Your task to perform on an android device: Go to display settings Image 0: 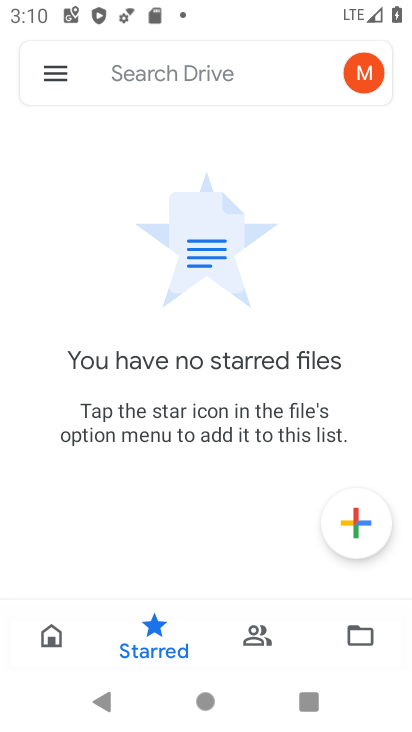
Step 0: press home button
Your task to perform on an android device: Go to display settings Image 1: 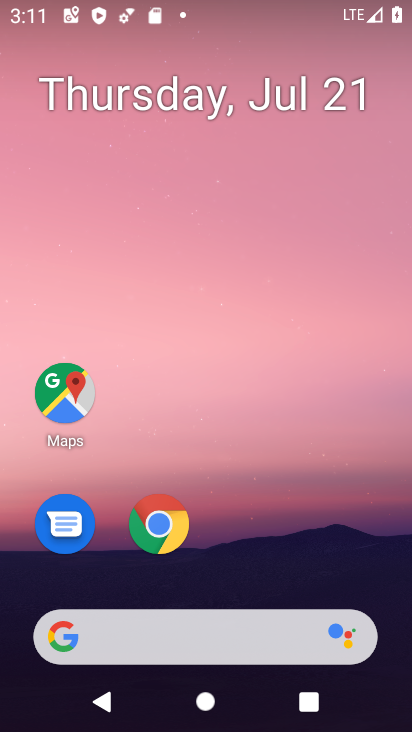
Step 1: drag from (316, 321) to (307, 12)
Your task to perform on an android device: Go to display settings Image 2: 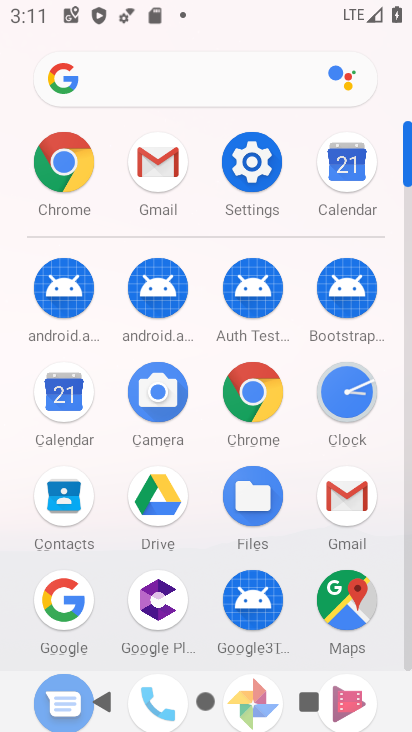
Step 2: drag from (198, 396) to (236, 163)
Your task to perform on an android device: Go to display settings Image 3: 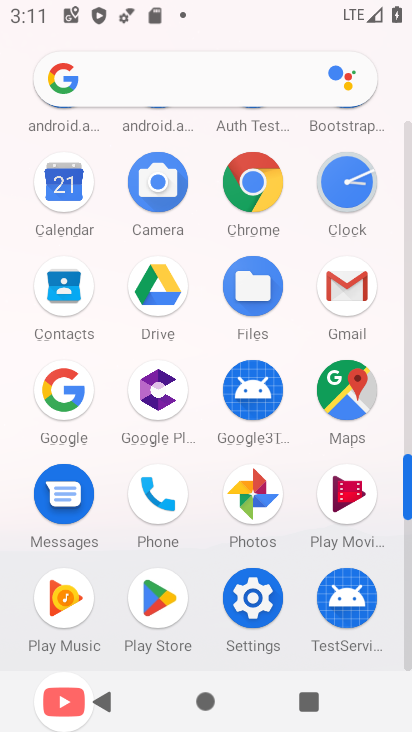
Step 3: drag from (218, 230) to (220, 488)
Your task to perform on an android device: Go to display settings Image 4: 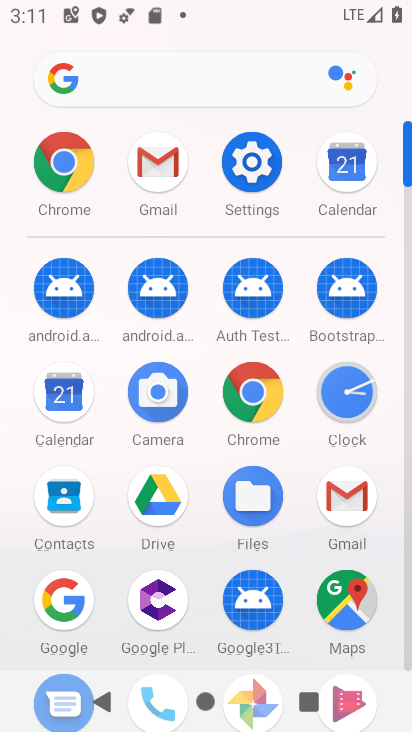
Step 4: click (251, 159)
Your task to perform on an android device: Go to display settings Image 5: 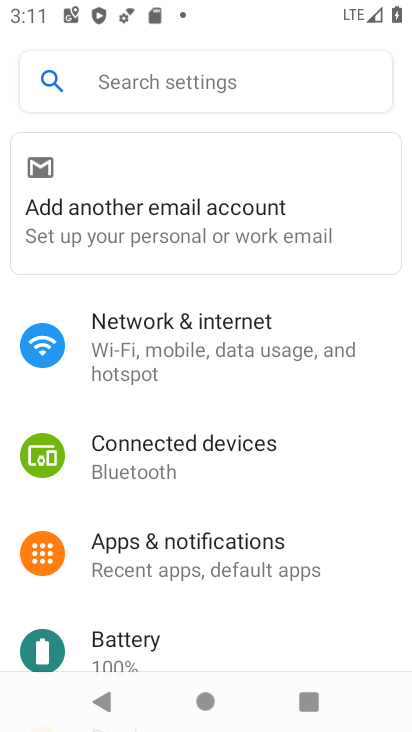
Step 5: drag from (215, 561) to (251, 137)
Your task to perform on an android device: Go to display settings Image 6: 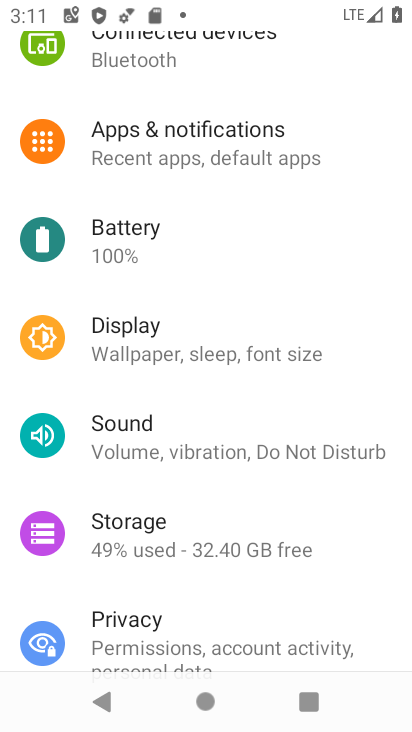
Step 6: click (201, 343)
Your task to perform on an android device: Go to display settings Image 7: 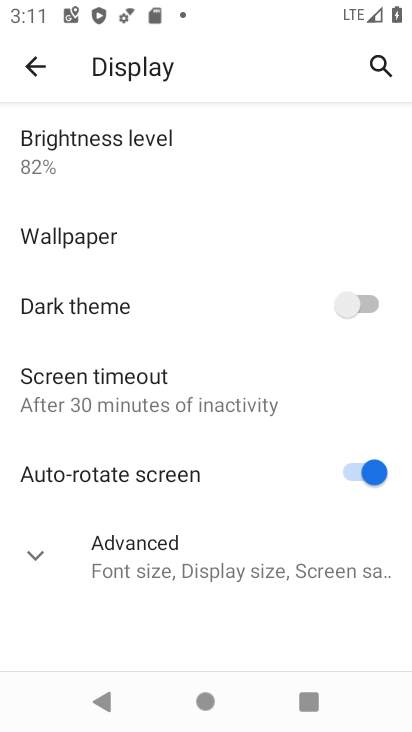
Step 7: click (35, 554)
Your task to perform on an android device: Go to display settings Image 8: 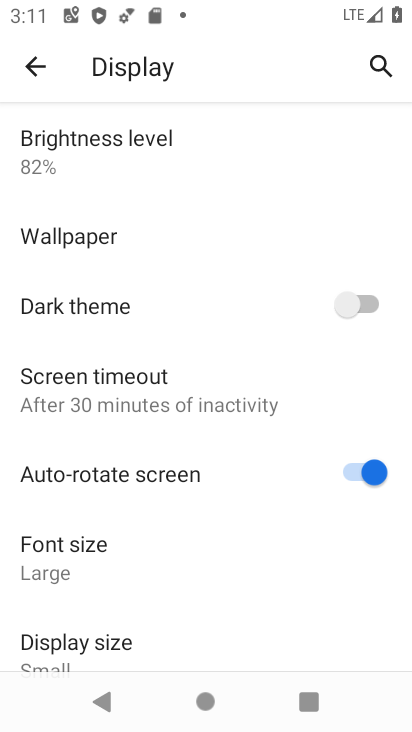
Step 8: task complete